Your task to perform on an android device: Open the phone app and click the voicemail tab. Image 0: 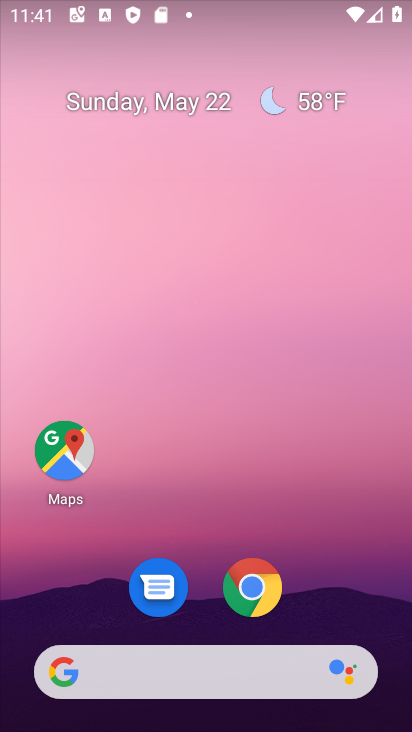
Step 0: drag from (224, 500) to (228, 105)
Your task to perform on an android device: Open the phone app and click the voicemail tab. Image 1: 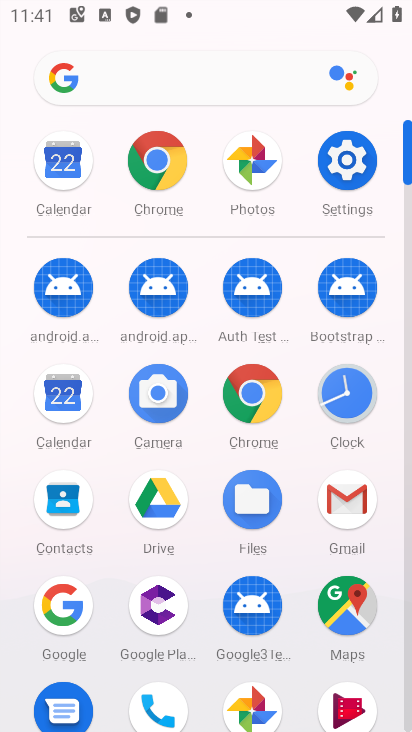
Step 1: click (168, 696)
Your task to perform on an android device: Open the phone app and click the voicemail tab. Image 2: 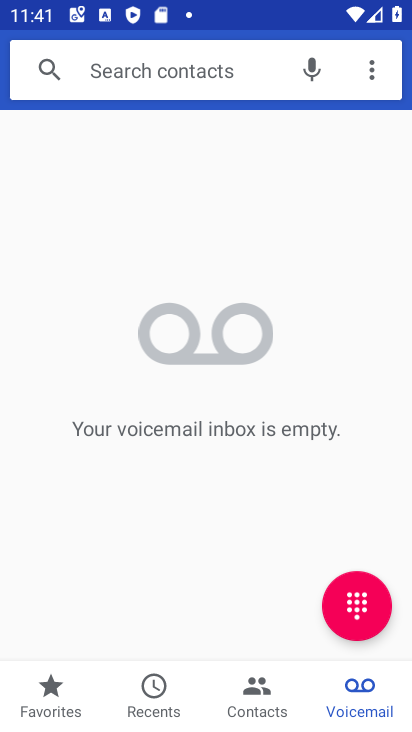
Step 2: task complete